Your task to perform on an android device: toggle notifications settings in the gmail app Image 0: 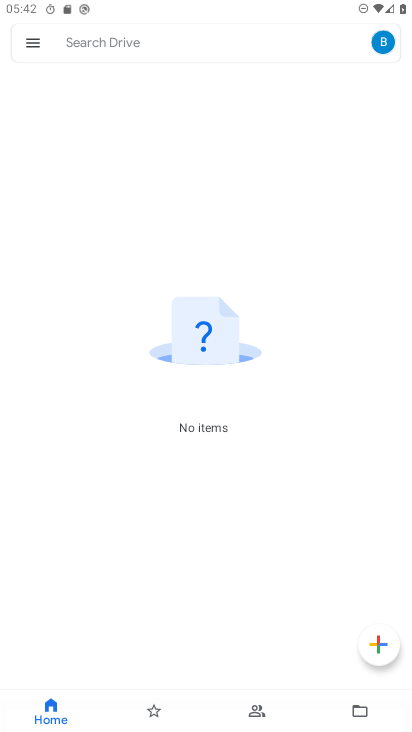
Step 0: press home button
Your task to perform on an android device: toggle notifications settings in the gmail app Image 1: 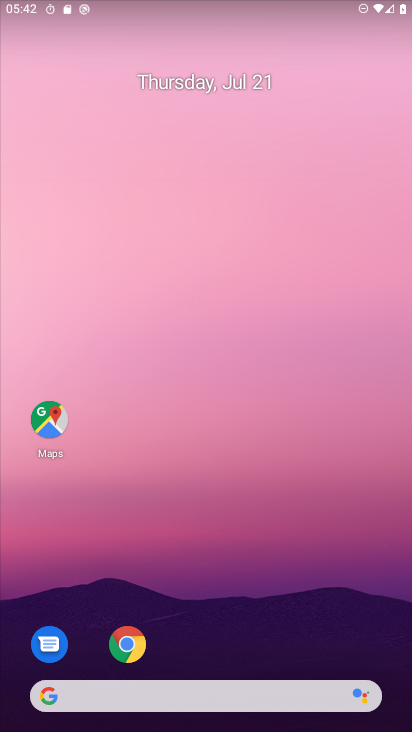
Step 1: drag from (184, 635) to (194, 216)
Your task to perform on an android device: toggle notifications settings in the gmail app Image 2: 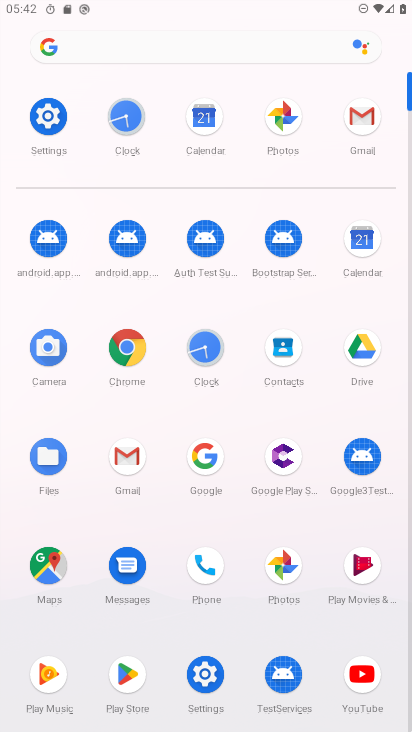
Step 2: click (369, 129)
Your task to perform on an android device: toggle notifications settings in the gmail app Image 3: 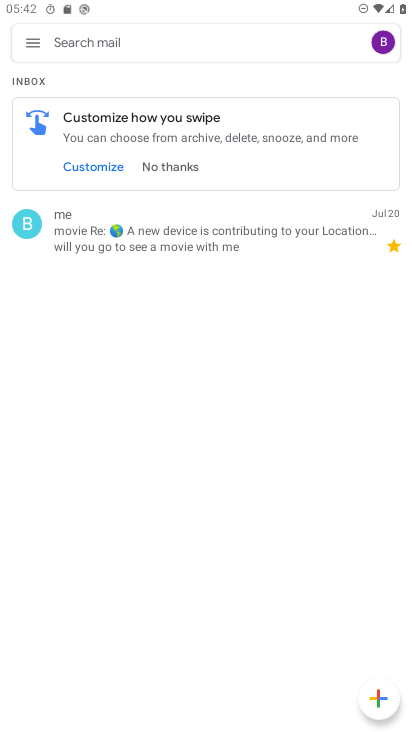
Step 3: click (29, 44)
Your task to perform on an android device: toggle notifications settings in the gmail app Image 4: 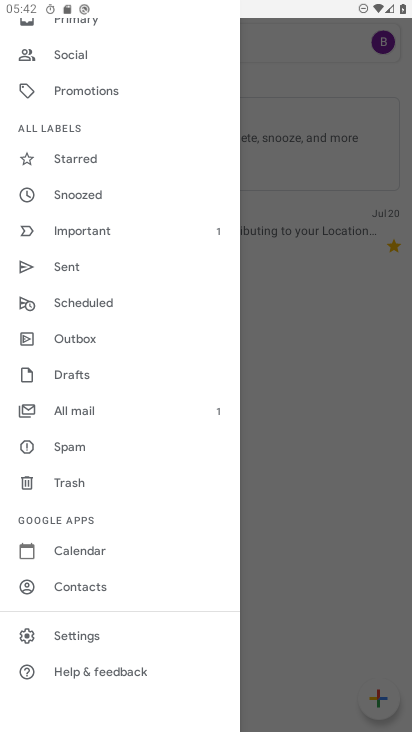
Step 4: click (66, 635)
Your task to perform on an android device: toggle notifications settings in the gmail app Image 5: 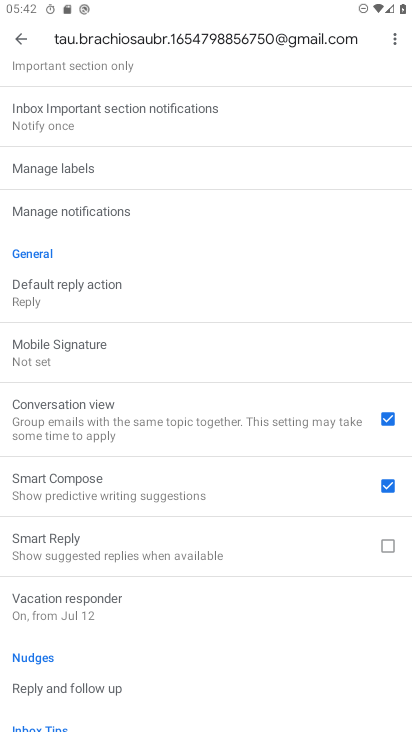
Step 5: click (112, 212)
Your task to perform on an android device: toggle notifications settings in the gmail app Image 6: 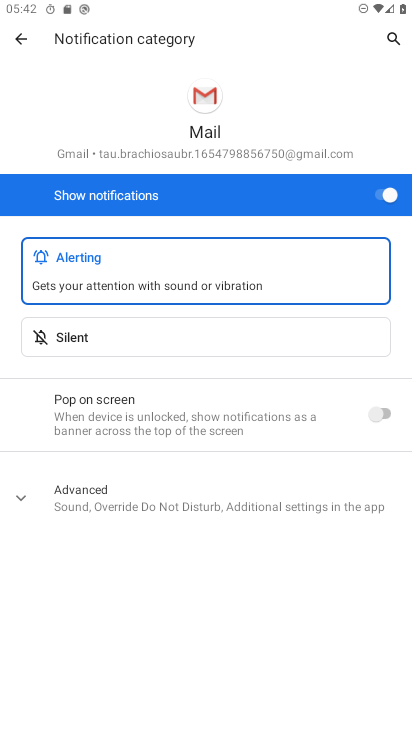
Step 6: click (380, 190)
Your task to perform on an android device: toggle notifications settings in the gmail app Image 7: 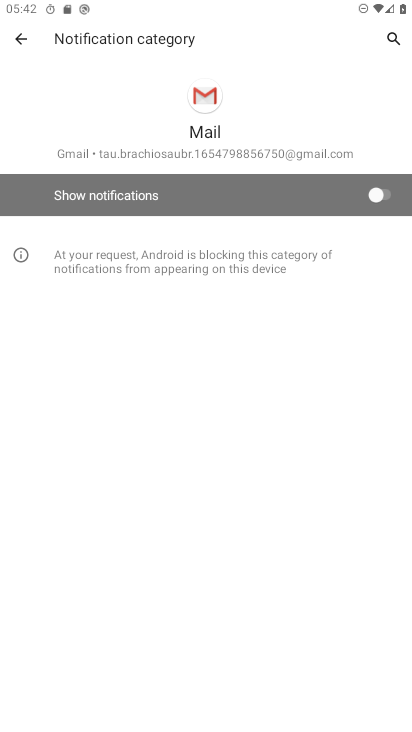
Step 7: task complete